Your task to perform on an android device: Show me the alarms in the clock app Image 0: 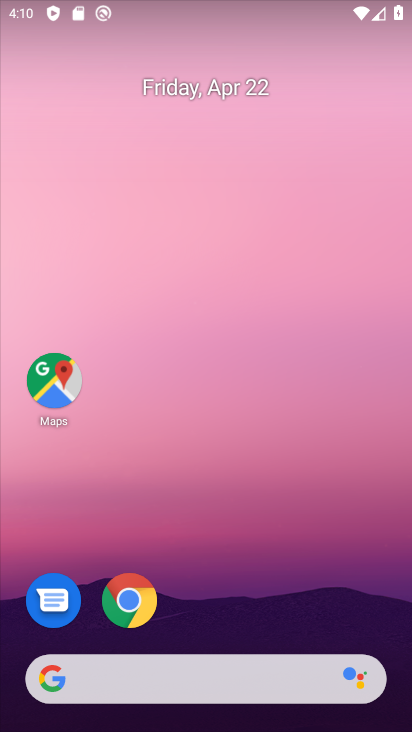
Step 0: drag from (225, 651) to (197, 349)
Your task to perform on an android device: Show me the alarms in the clock app Image 1: 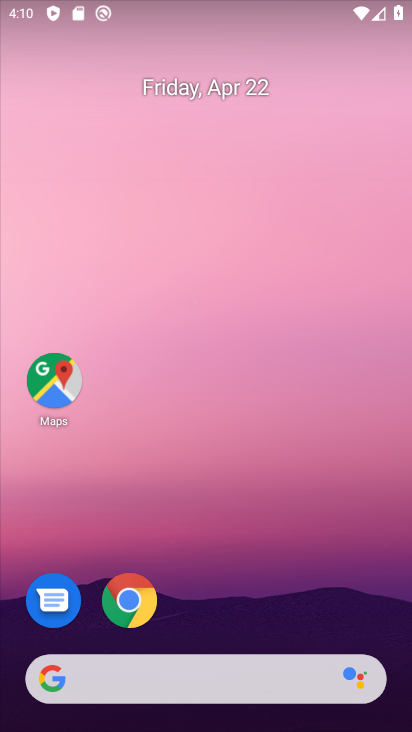
Step 1: drag from (204, 537) to (211, 342)
Your task to perform on an android device: Show me the alarms in the clock app Image 2: 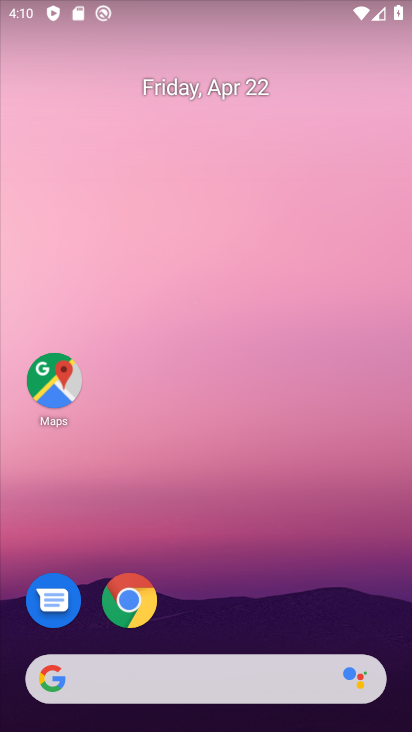
Step 2: drag from (219, 624) to (208, 119)
Your task to perform on an android device: Show me the alarms in the clock app Image 3: 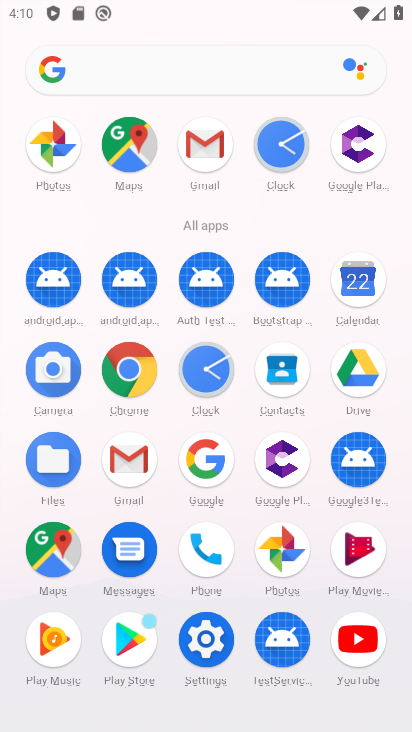
Step 3: click (199, 383)
Your task to perform on an android device: Show me the alarms in the clock app Image 4: 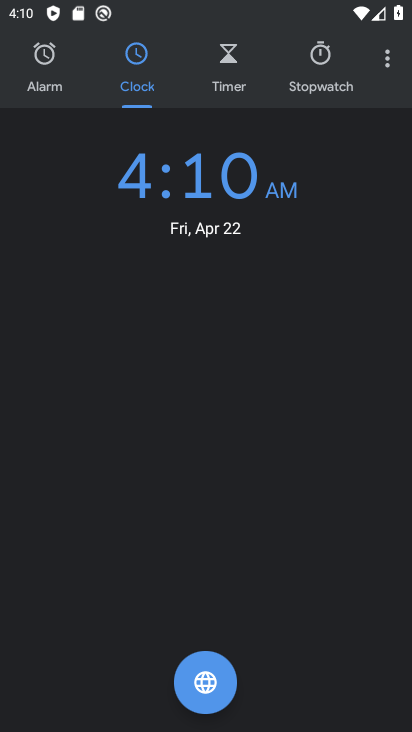
Step 4: click (52, 87)
Your task to perform on an android device: Show me the alarms in the clock app Image 5: 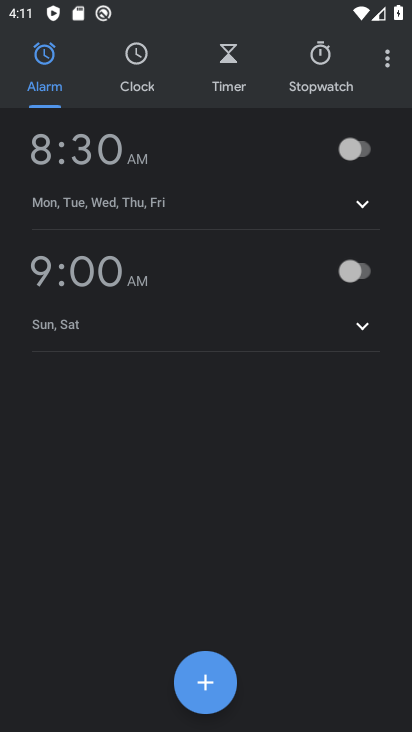
Step 5: task complete